Your task to perform on an android device: Search for sushi restaurants on Maps Image 0: 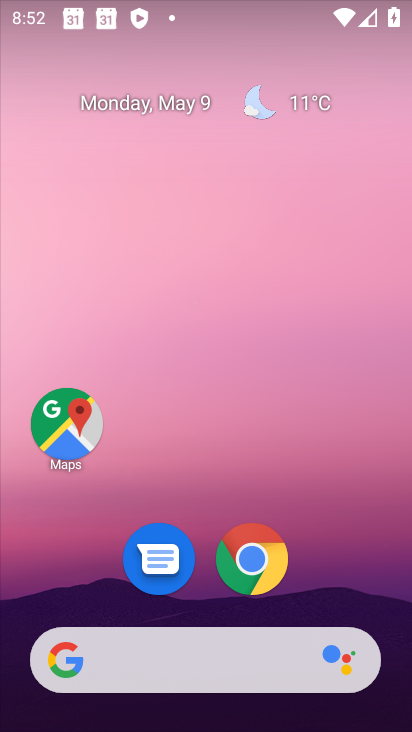
Step 0: drag from (359, 574) to (280, 148)
Your task to perform on an android device: Search for sushi restaurants on Maps Image 1: 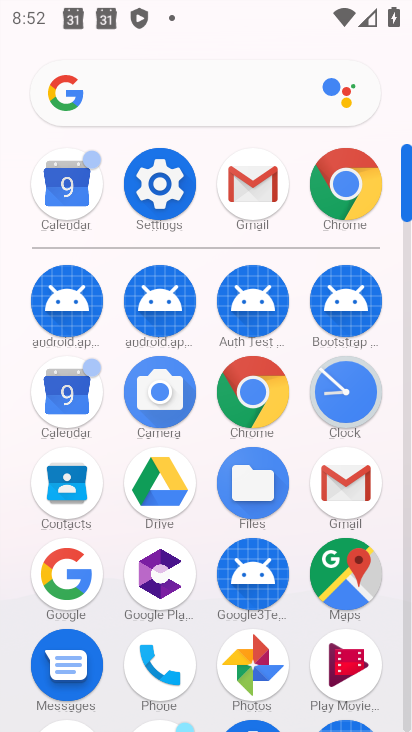
Step 1: click (339, 585)
Your task to perform on an android device: Search for sushi restaurants on Maps Image 2: 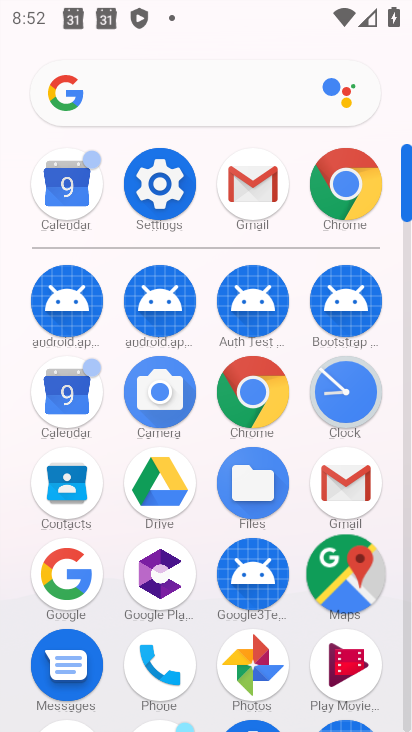
Step 2: click (339, 585)
Your task to perform on an android device: Search for sushi restaurants on Maps Image 3: 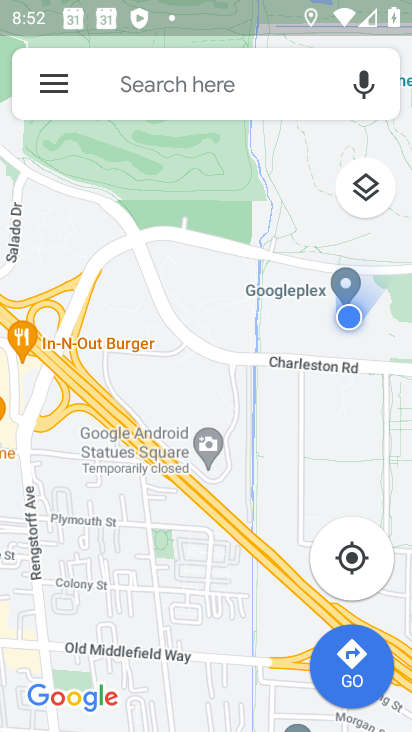
Step 3: click (121, 78)
Your task to perform on an android device: Search for sushi restaurants on Maps Image 4: 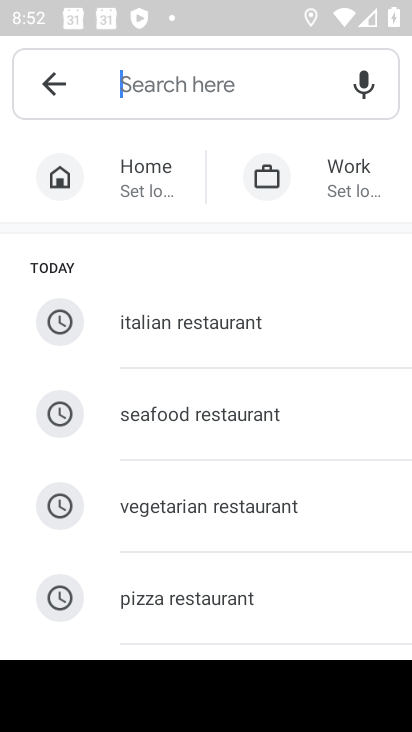
Step 4: type "shushi restaurants"
Your task to perform on an android device: Search for sushi restaurants on Maps Image 5: 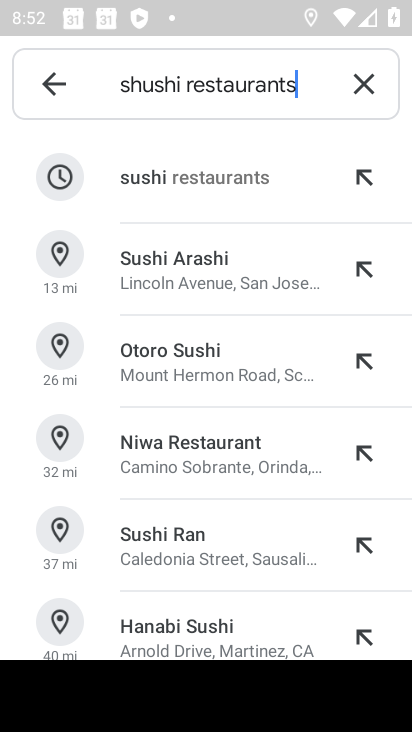
Step 5: click (187, 184)
Your task to perform on an android device: Search for sushi restaurants on Maps Image 6: 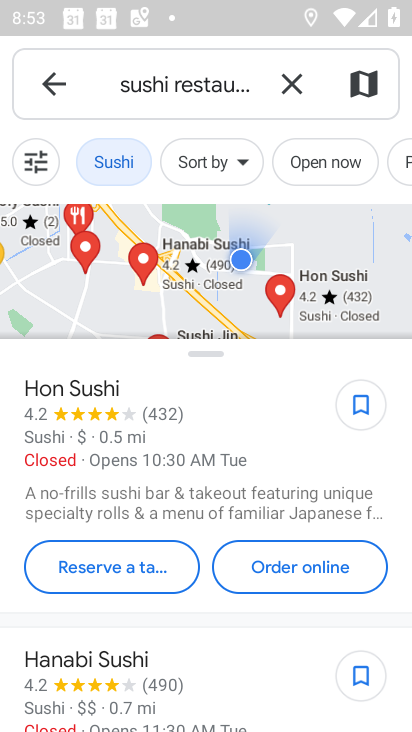
Step 6: task complete